Your task to perform on an android device: check the backup settings in the google photos Image 0: 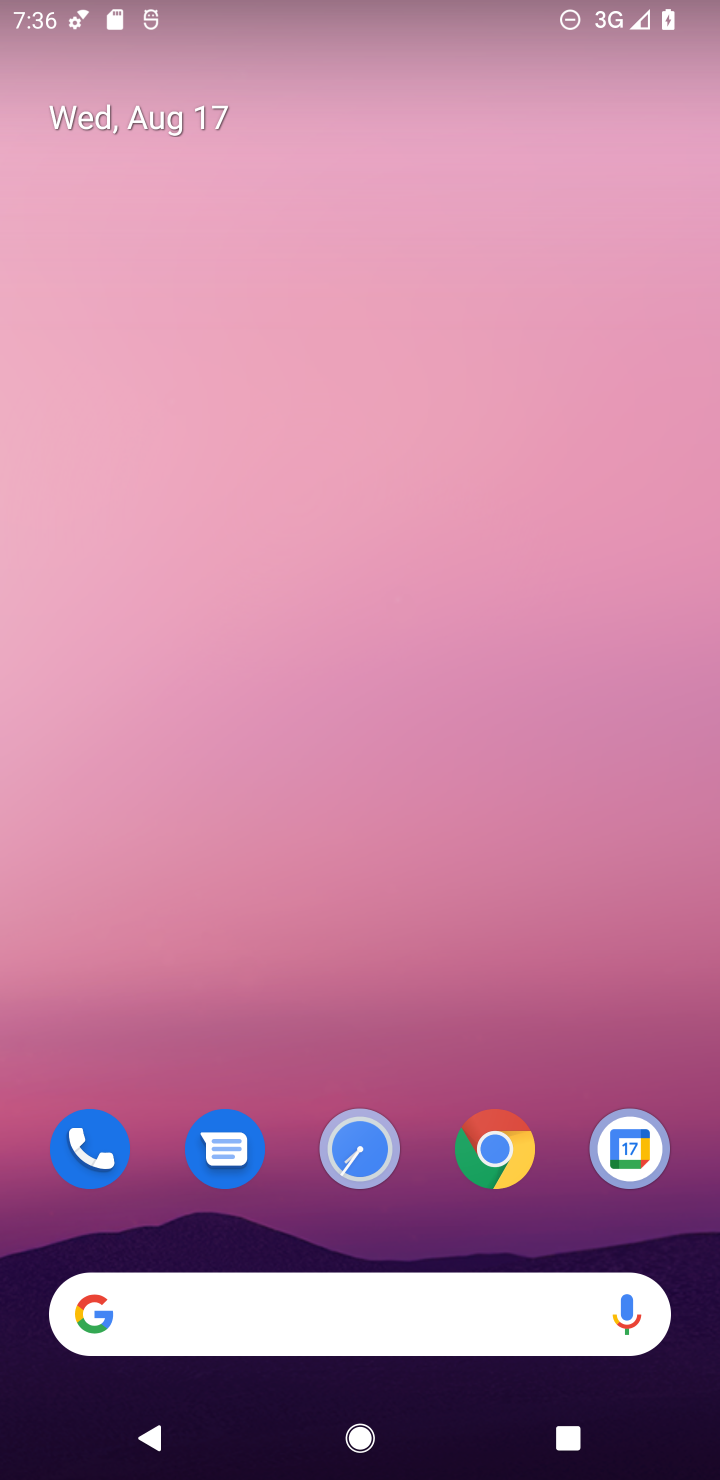
Step 0: drag from (447, 1224) to (472, 709)
Your task to perform on an android device: check the backup settings in the google photos Image 1: 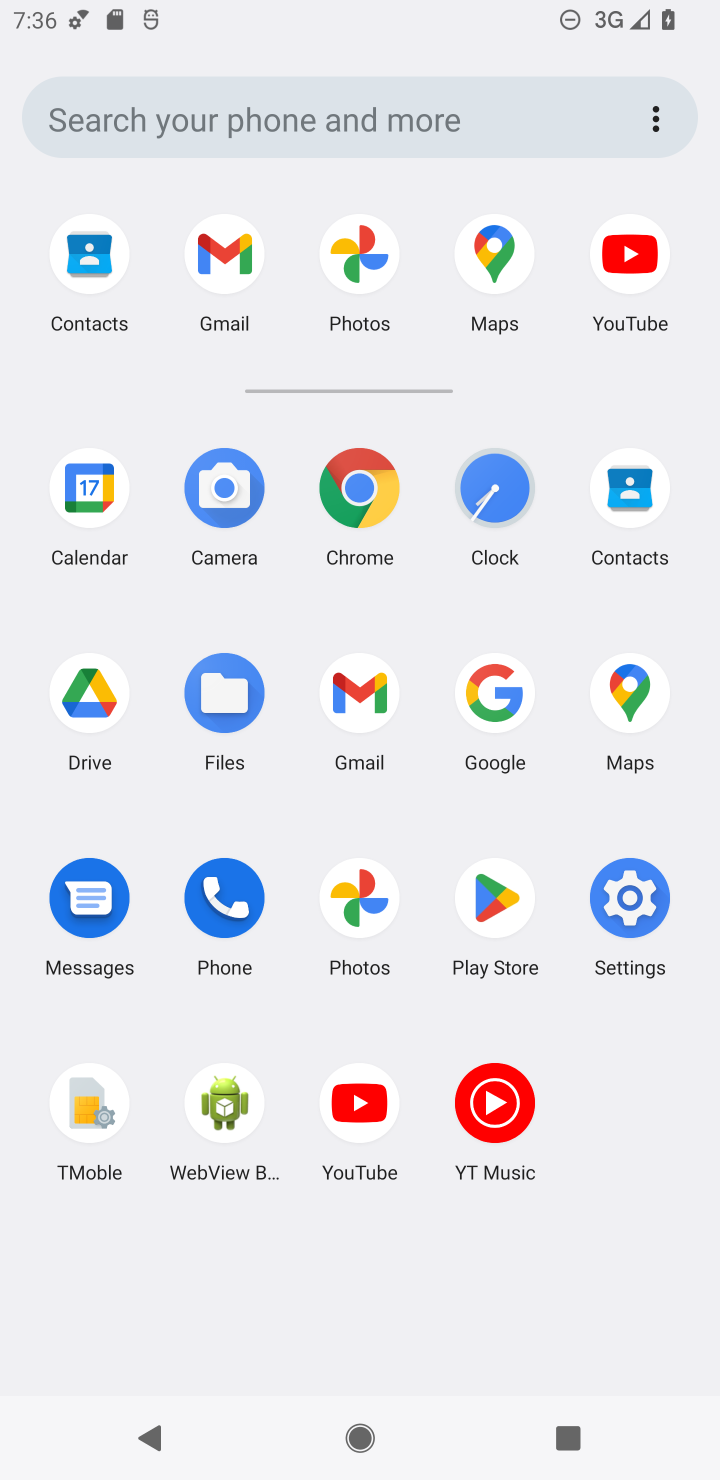
Step 1: click (363, 243)
Your task to perform on an android device: check the backup settings in the google photos Image 2: 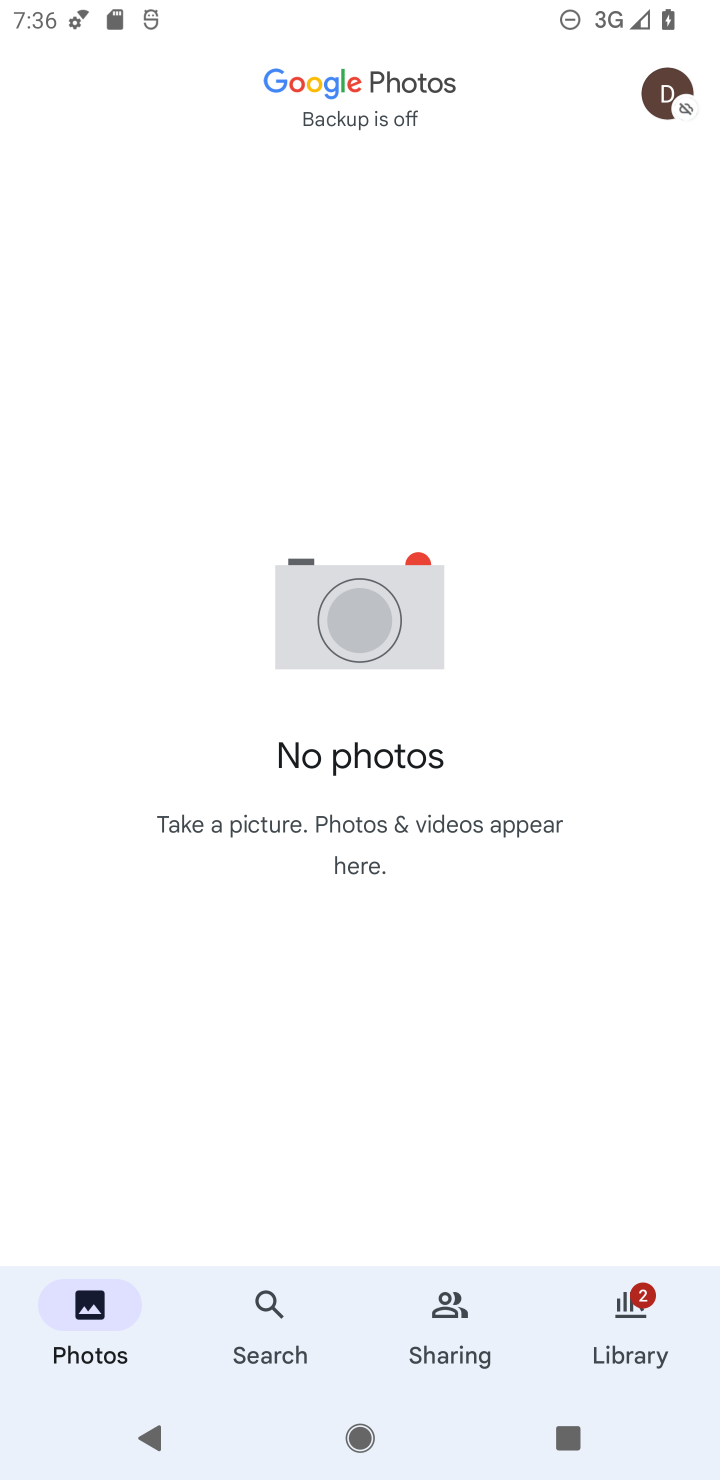
Step 2: click (664, 86)
Your task to perform on an android device: check the backup settings in the google photos Image 3: 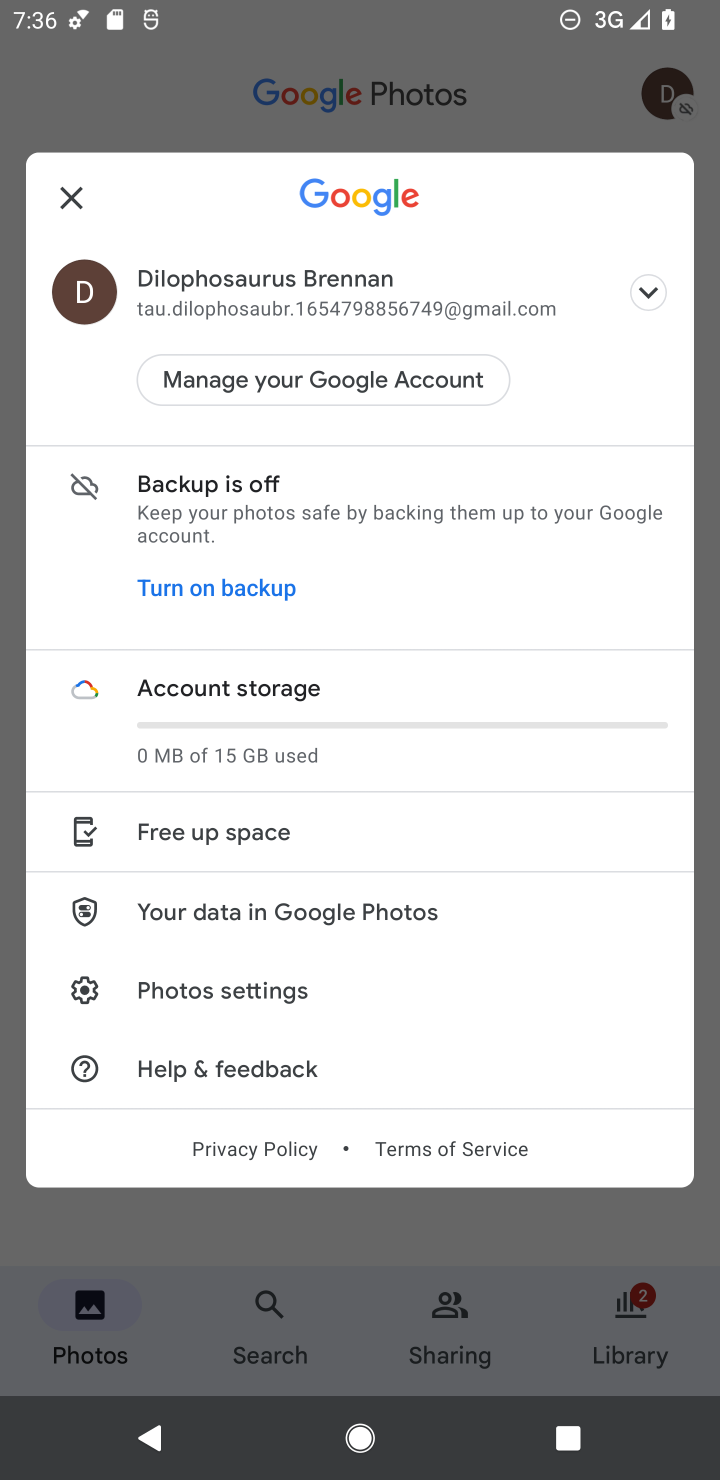
Step 3: click (226, 482)
Your task to perform on an android device: check the backup settings in the google photos Image 4: 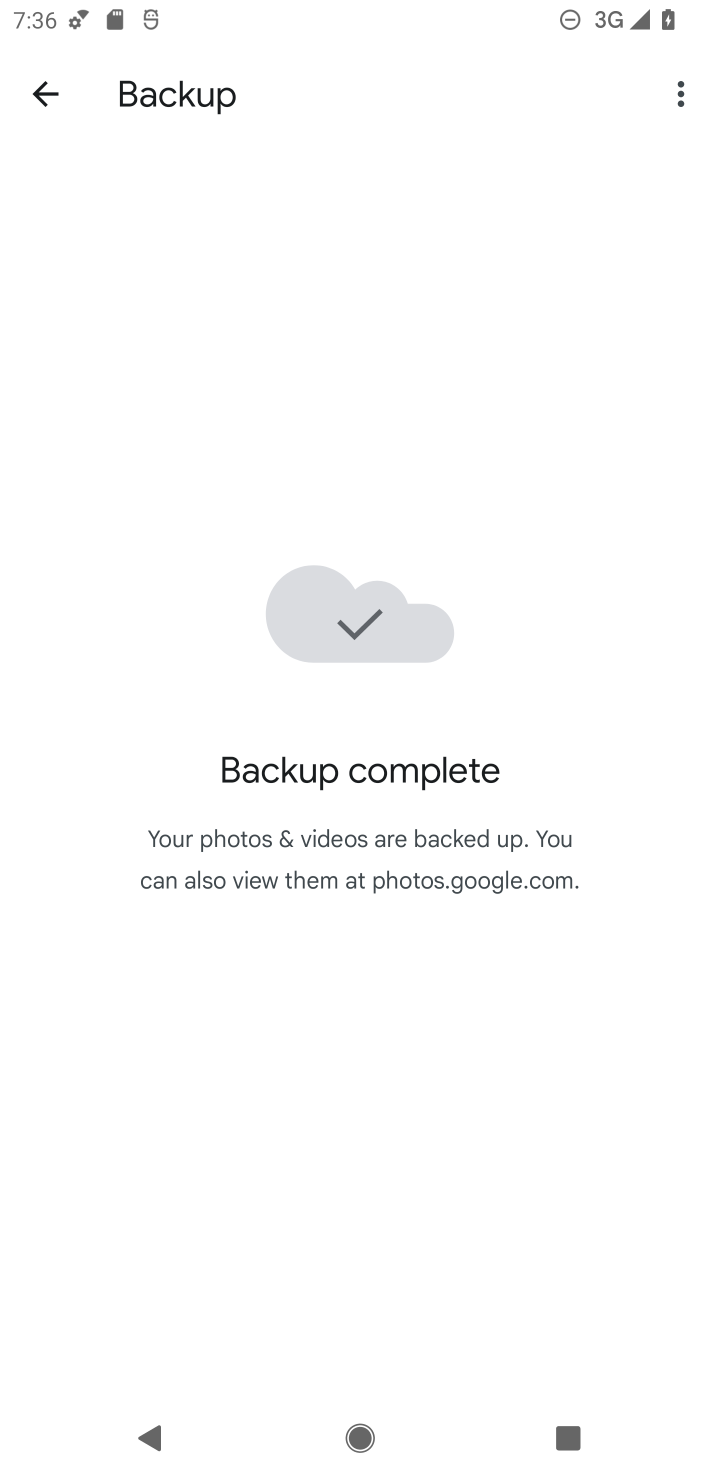
Step 4: task complete